Your task to perform on an android device: turn off javascript in the chrome app Image 0: 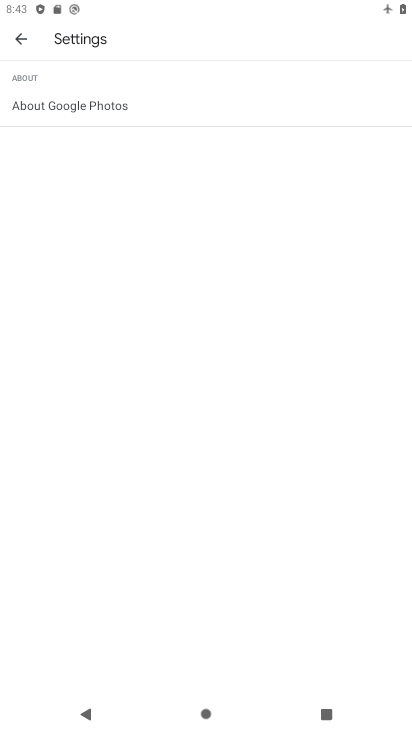
Step 0: press home button
Your task to perform on an android device: turn off javascript in the chrome app Image 1: 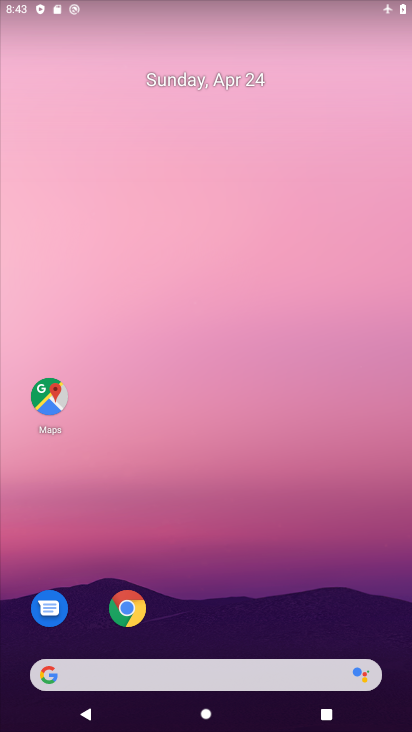
Step 1: click (130, 610)
Your task to perform on an android device: turn off javascript in the chrome app Image 2: 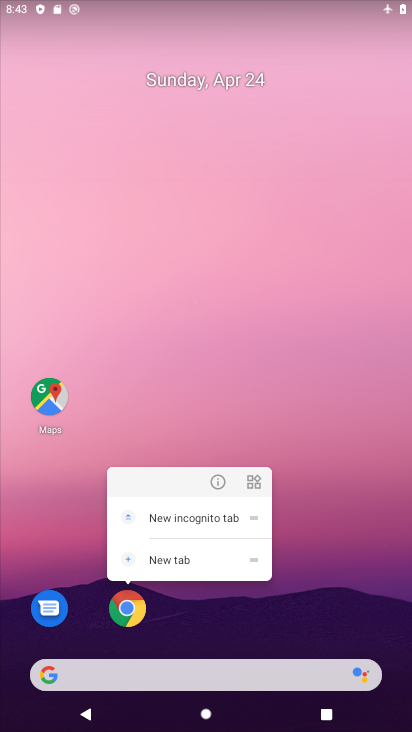
Step 2: click (138, 600)
Your task to perform on an android device: turn off javascript in the chrome app Image 3: 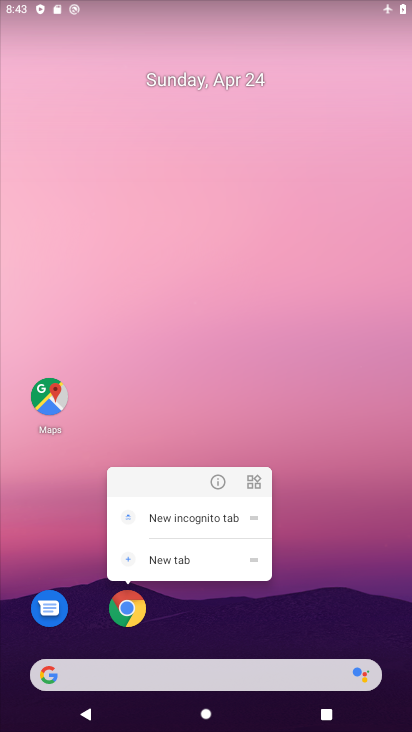
Step 3: click (139, 600)
Your task to perform on an android device: turn off javascript in the chrome app Image 4: 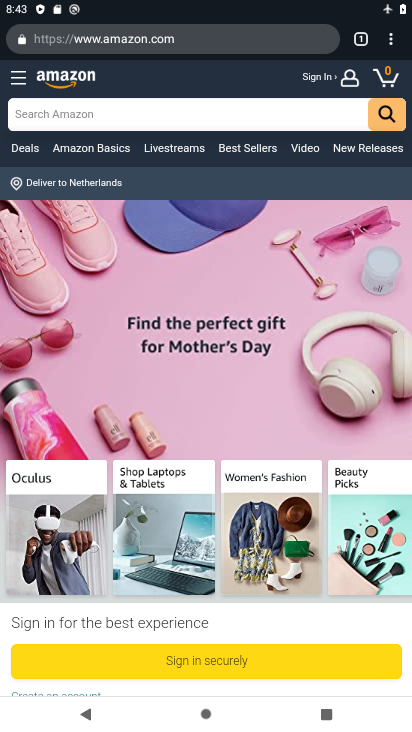
Step 4: drag from (390, 43) to (258, 471)
Your task to perform on an android device: turn off javascript in the chrome app Image 5: 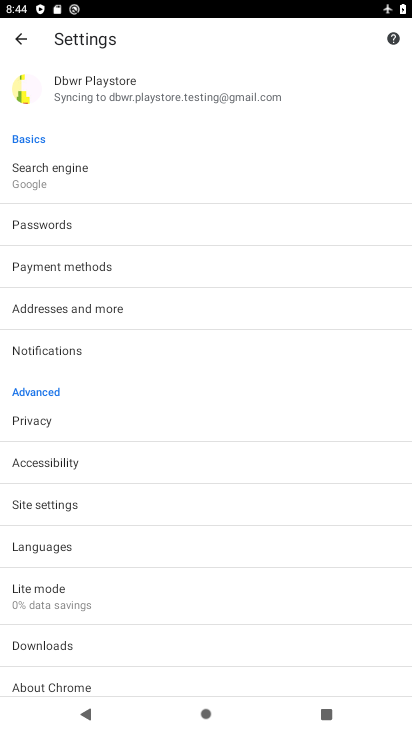
Step 5: drag from (172, 627) to (180, 403)
Your task to perform on an android device: turn off javascript in the chrome app Image 6: 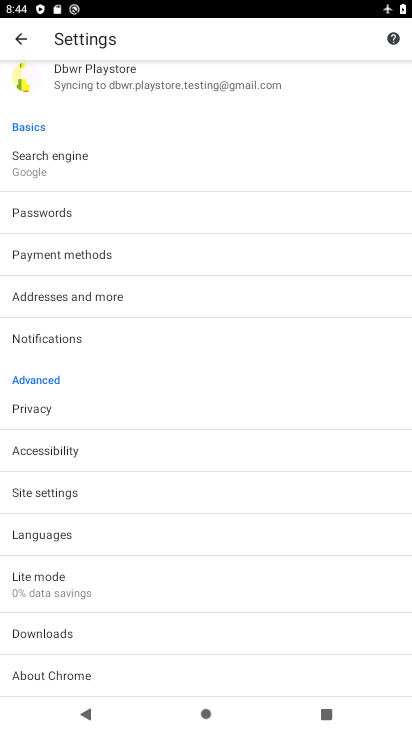
Step 6: click (72, 574)
Your task to perform on an android device: turn off javascript in the chrome app Image 7: 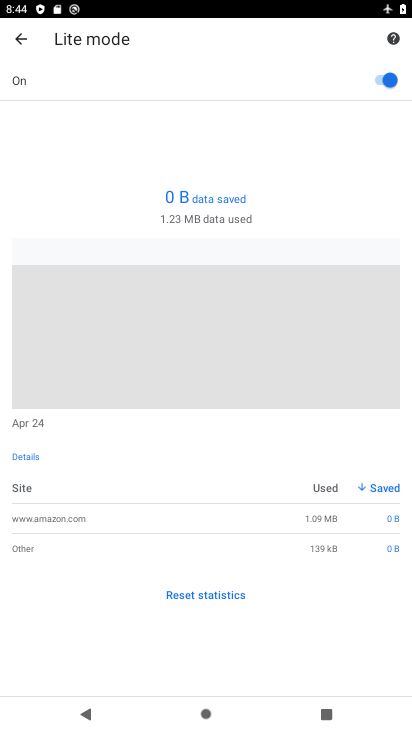
Step 7: click (24, 33)
Your task to perform on an android device: turn off javascript in the chrome app Image 8: 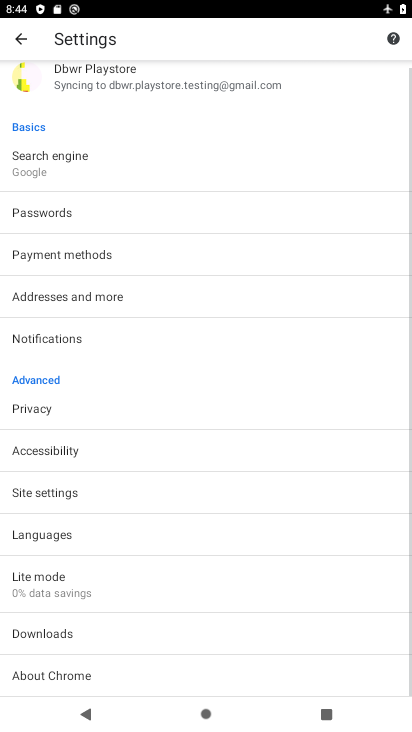
Step 8: click (107, 483)
Your task to perform on an android device: turn off javascript in the chrome app Image 9: 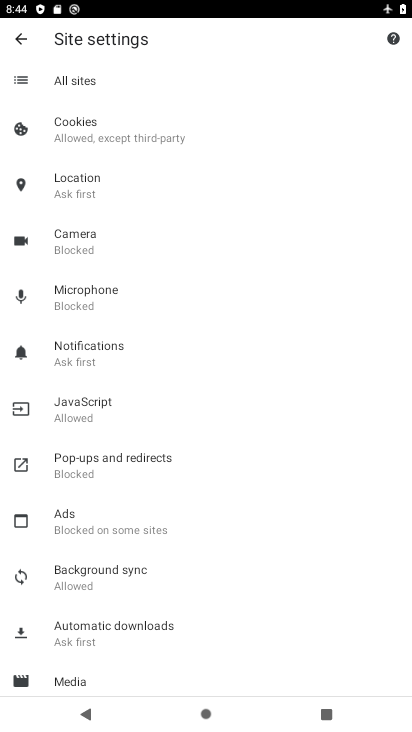
Step 9: click (113, 408)
Your task to perform on an android device: turn off javascript in the chrome app Image 10: 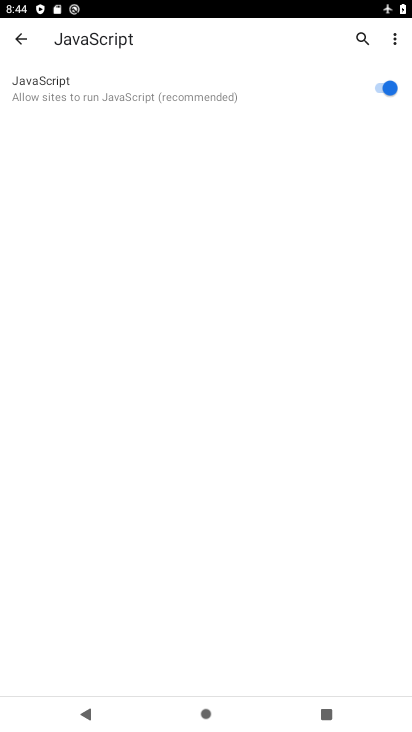
Step 10: click (377, 89)
Your task to perform on an android device: turn off javascript in the chrome app Image 11: 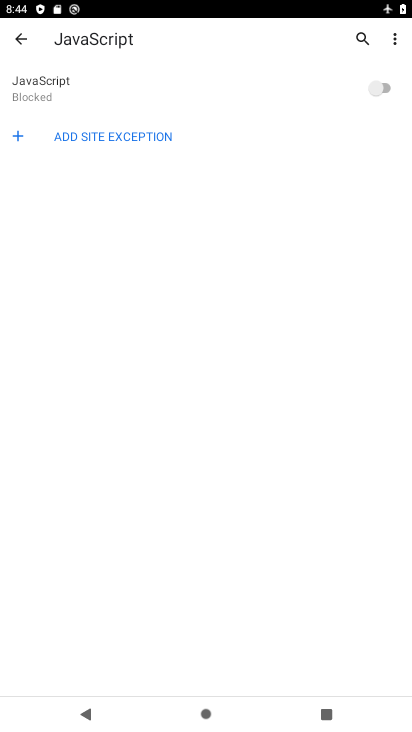
Step 11: task complete